Your task to perform on an android device: find snoozed emails in the gmail app Image 0: 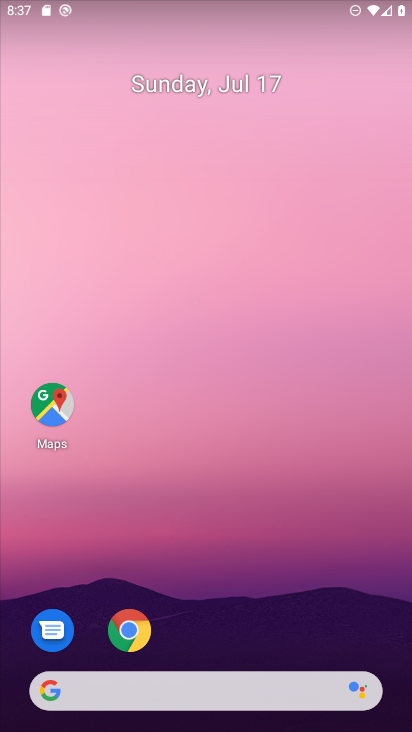
Step 0: drag from (374, 611) to (200, 83)
Your task to perform on an android device: find snoozed emails in the gmail app Image 1: 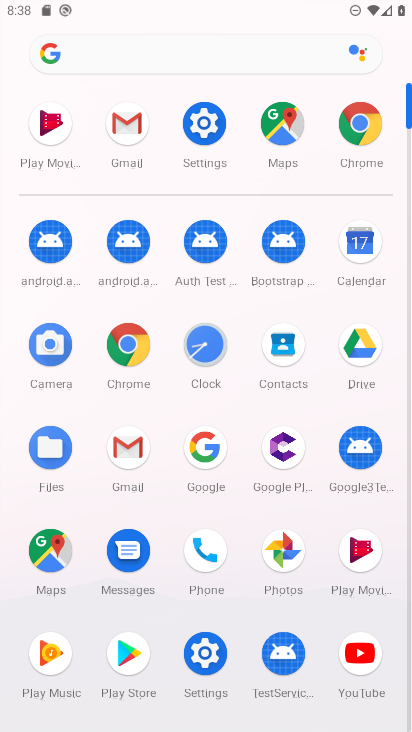
Step 1: click (132, 453)
Your task to perform on an android device: find snoozed emails in the gmail app Image 2: 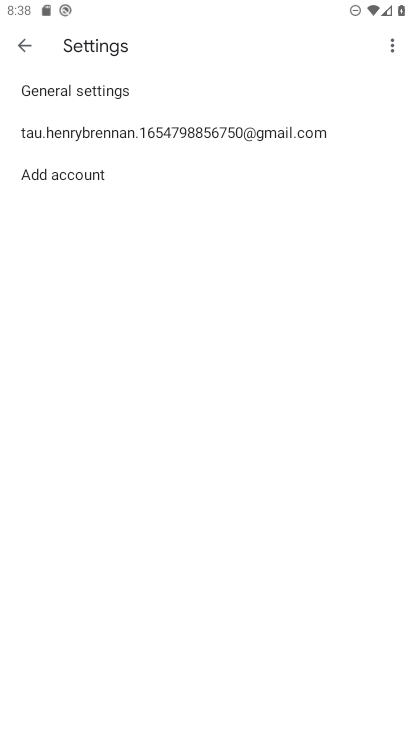
Step 2: press back button
Your task to perform on an android device: find snoozed emails in the gmail app Image 3: 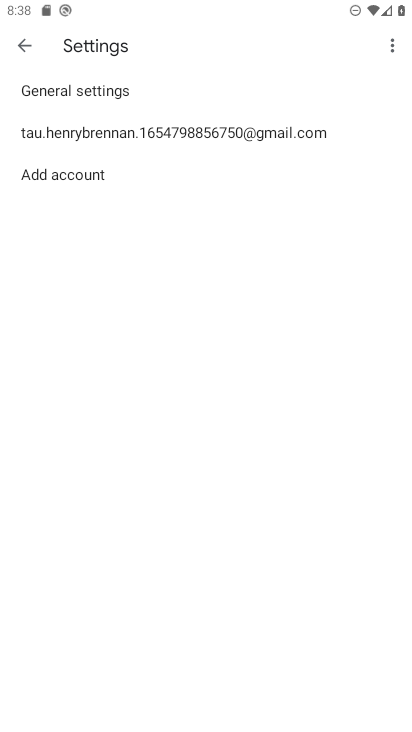
Step 3: press back button
Your task to perform on an android device: find snoozed emails in the gmail app Image 4: 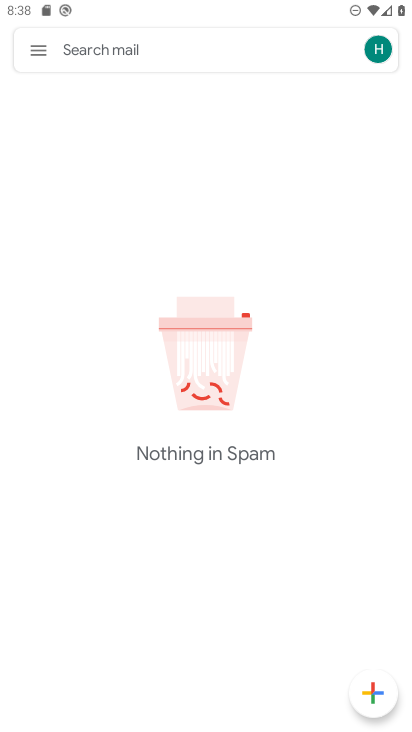
Step 4: click (25, 52)
Your task to perform on an android device: find snoozed emails in the gmail app Image 5: 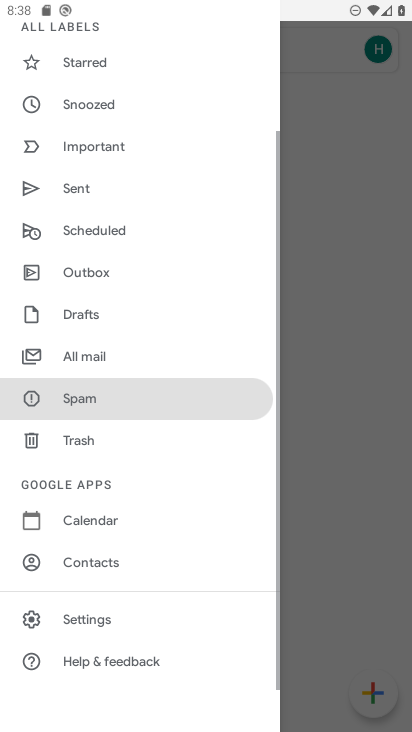
Step 5: click (102, 96)
Your task to perform on an android device: find snoozed emails in the gmail app Image 6: 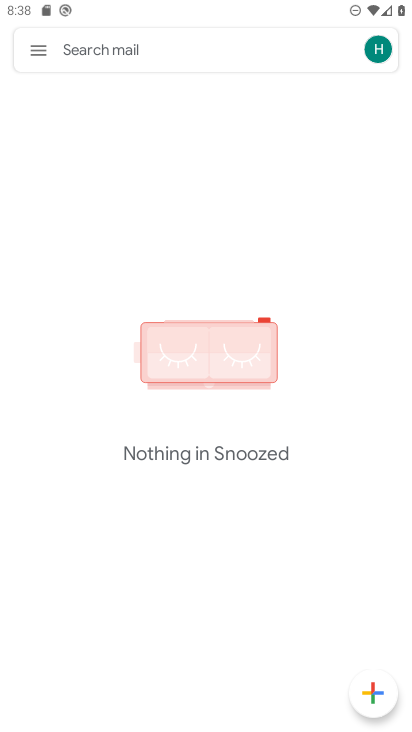
Step 6: task complete